Your task to perform on an android device: Go to Android settings Image 0: 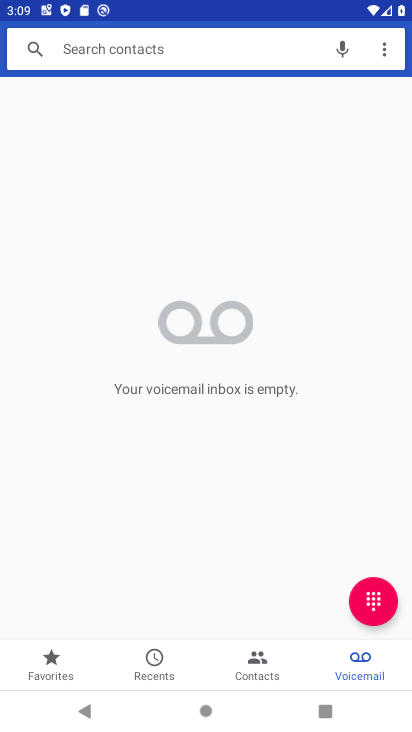
Step 0: press home button
Your task to perform on an android device: Go to Android settings Image 1: 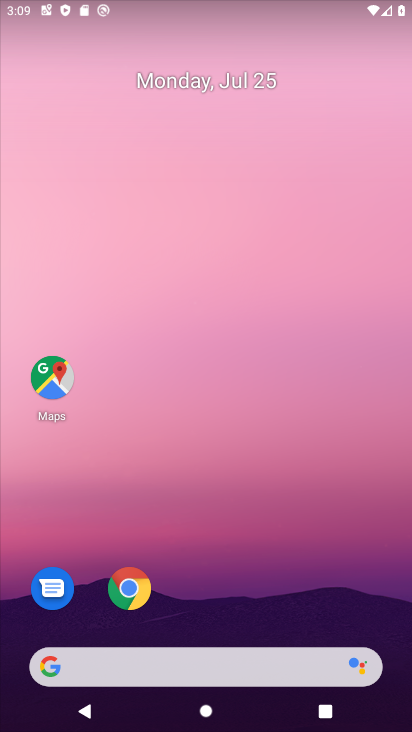
Step 1: drag from (190, 582) to (190, 171)
Your task to perform on an android device: Go to Android settings Image 2: 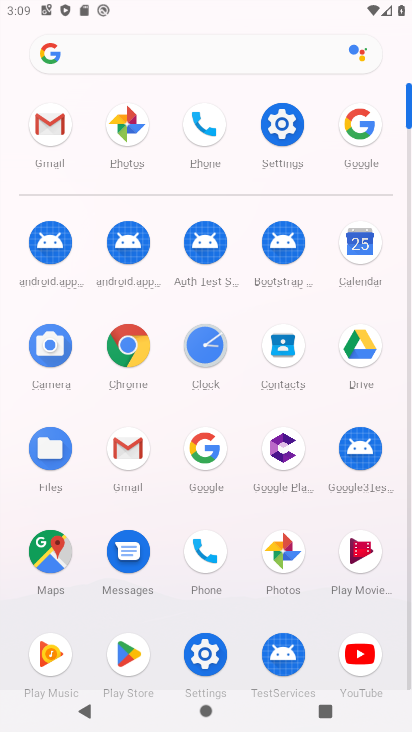
Step 2: click (299, 131)
Your task to perform on an android device: Go to Android settings Image 3: 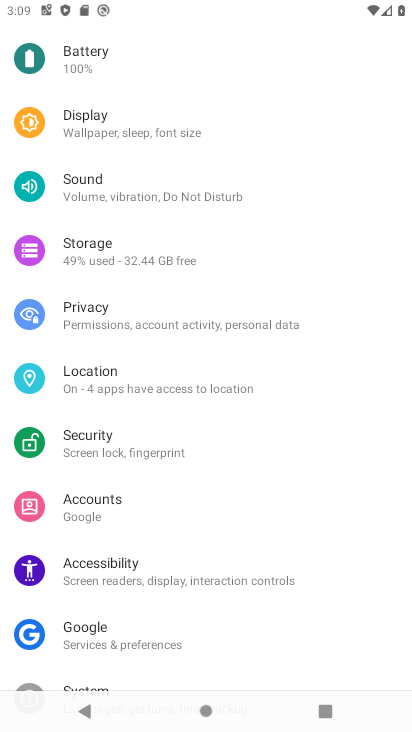
Step 3: task complete